Your task to perform on an android device: Open settings on Google Maps Image 0: 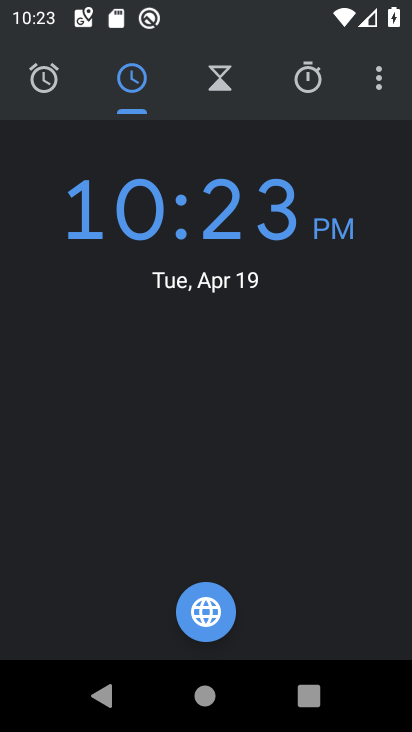
Step 0: press back button
Your task to perform on an android device: Open settings on Google Maps Image 1: 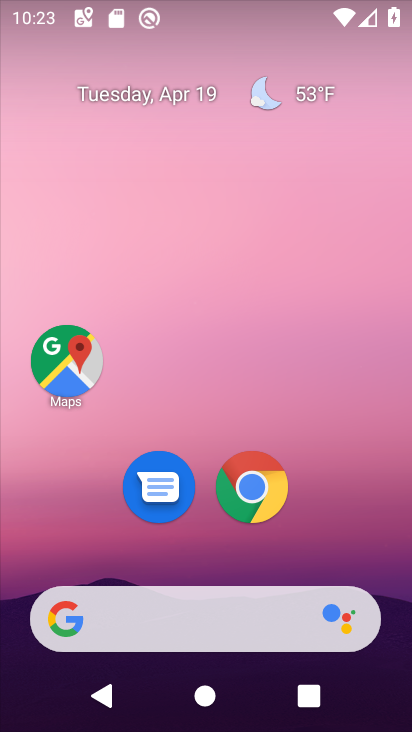
Step 1: drag from (388, 554) to (323, 0)
Your task to perform on an android device: Open settings on Google Maps Image 2: 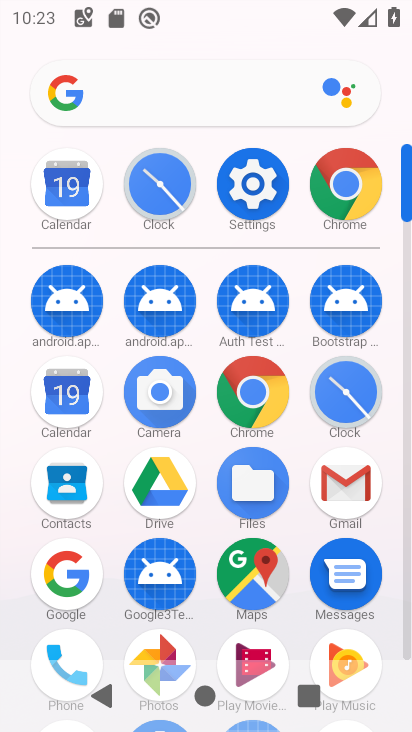
Step 2: drag from (11, 561) to (18, 265)
Your task to perform on an android device: Open settings on Google Maps Image 3: 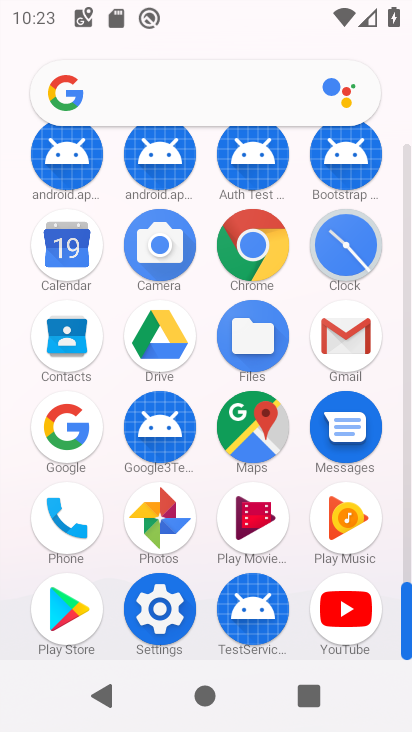
Step 3: click (252, 429)
Your task to perform on an android device: Open settings on Google Maps Image 4: 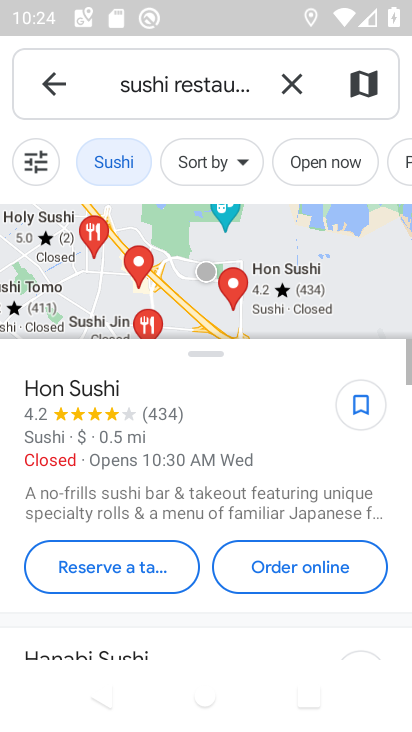
Step 4: click (60, 86)
Your task to perform on an android device: Open settings on Google Maps Image 5: 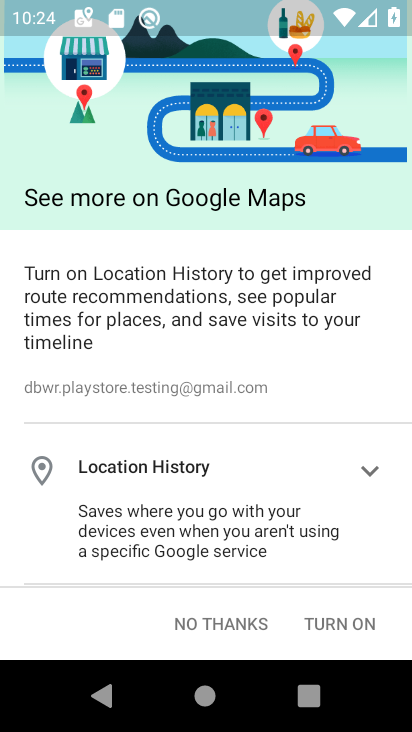
Step 5: click (354, 615)
Your task to perform on an android device: Open settings on Google Maps Image 6: 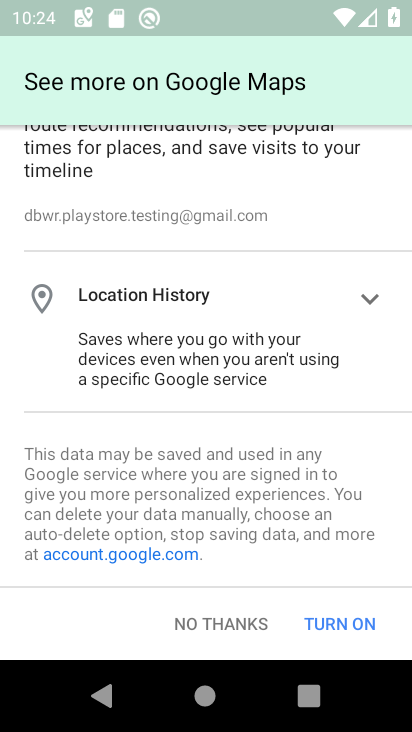
Step 6: click (354, 615)
Your task to perform on an android device: Open settings on Google Maps Image 7: 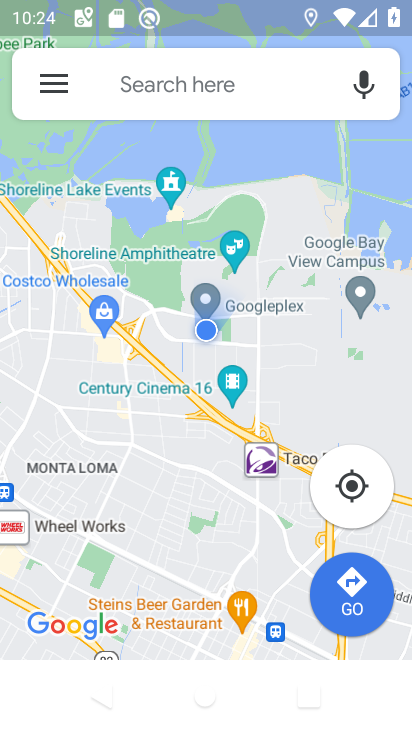
Step 7: task complete